Your task to perform on an android device: add a label to a message in the gmail app Image 0: 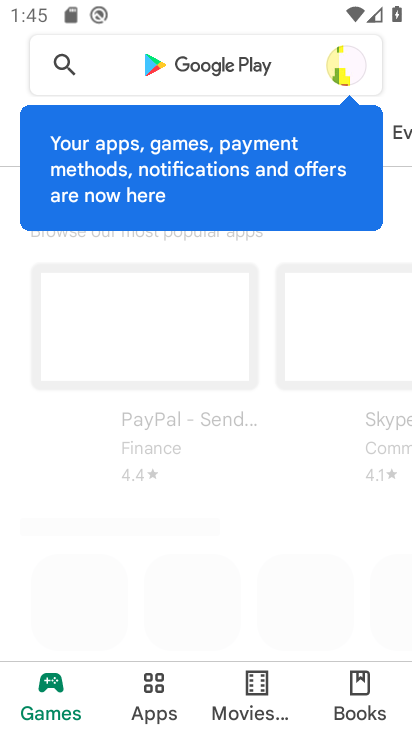
Step 0: press back button
Your task to perform on an android device: add a label to a message in the gmail app Image 1: 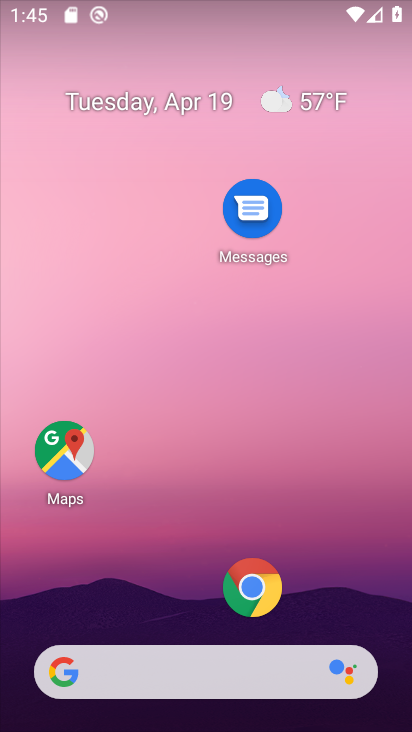
Step 1: drag from (146, 635) to (212, 231)
Your task to perform on an android device: add a label to a message in the gmail app Image 2: 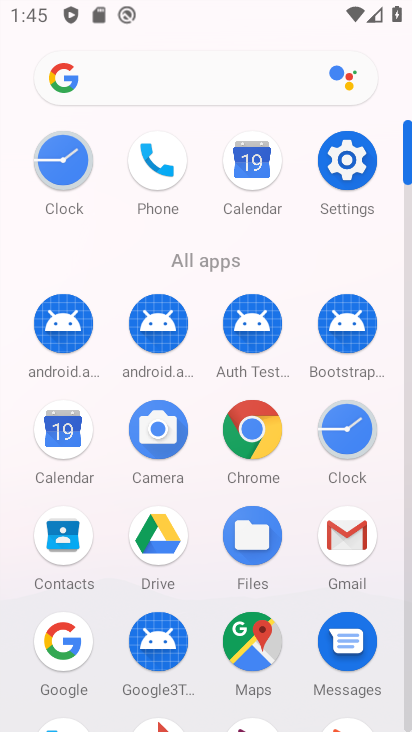
Step 2: click (349, 521)
Your task to perform on an android device: add a label to a message in the gmail app Image 3: 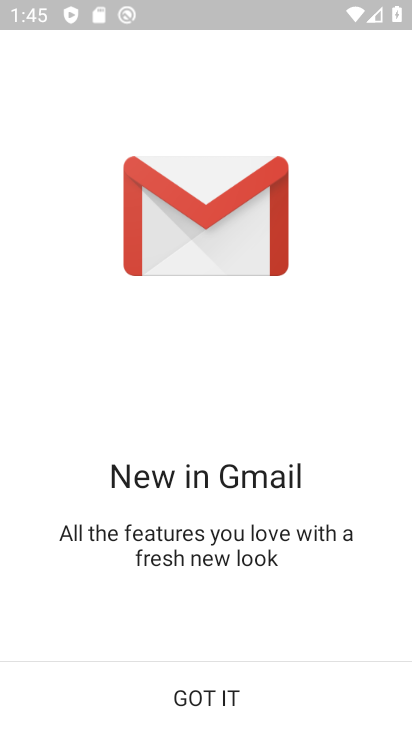
Step 3: click (233, 698)
Your task to perform on an android device: add a label to a message in the gmail app Image 4: 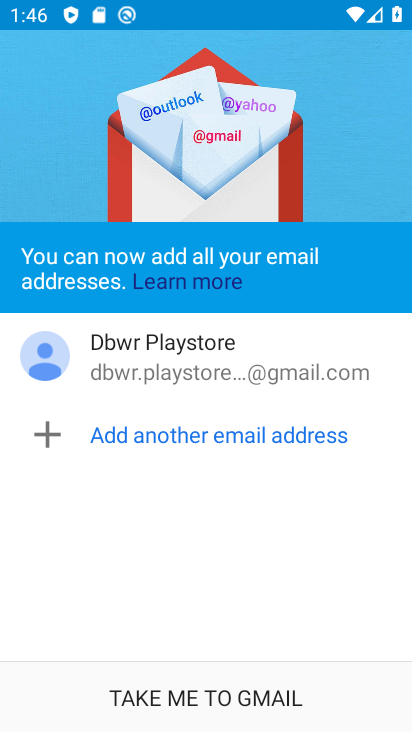
Step 4: click (240, 695)
Your task to perform on an android device: add a label to a message in the gmail app Image 5: 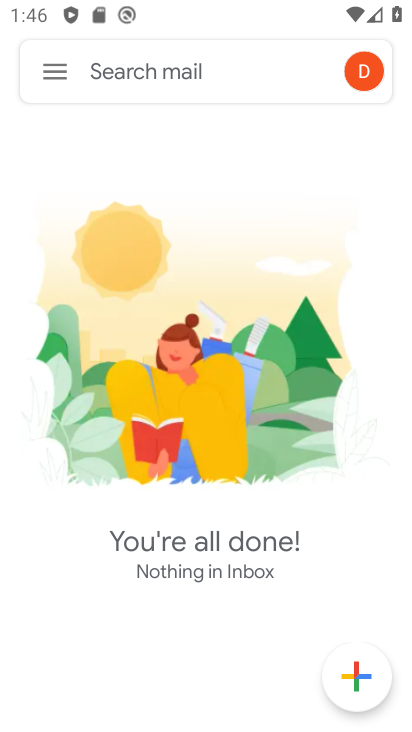
Step 5: click (64, 62)
Your task to perform on an android device: add a label to a message in the gmail app Image 6: 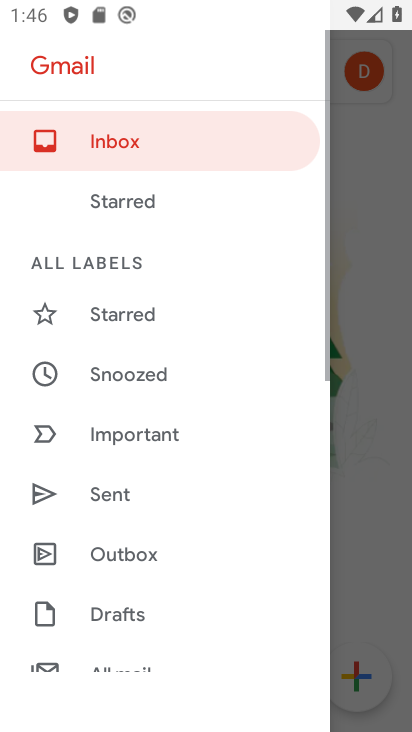
Step 6: drag from (147, 647) to (240, 304)
Your task to perform on an android device: add a label to a message in the gmail app Image 7: 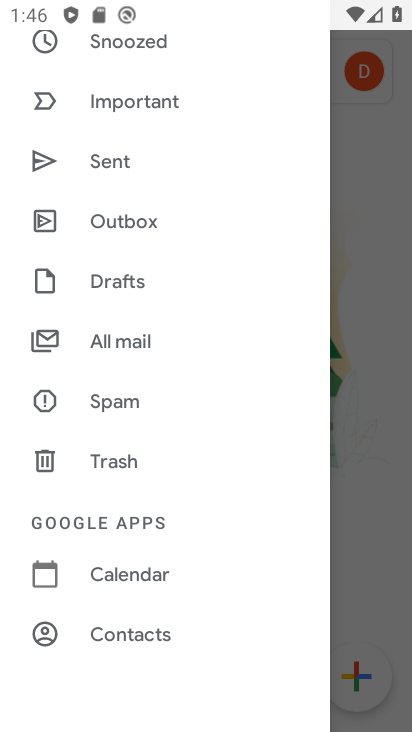
Step 7: click (167, 343)
Your task to perform on an android device: add a label to a message in the gmail app Image 8: 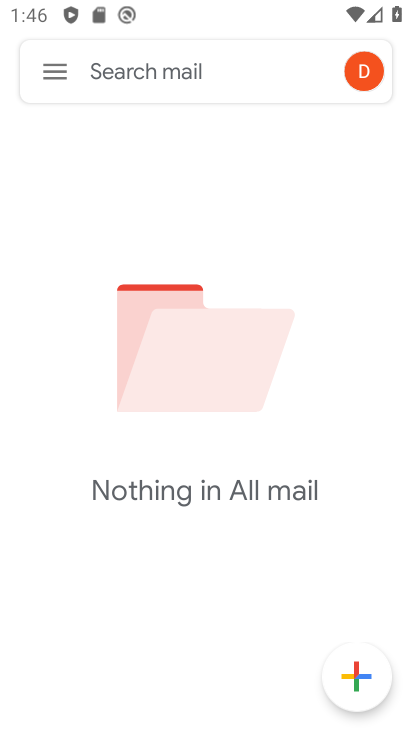
Step 8: task complete